Your task to perform on an android device: Search for flights from Buenos aires to Seoul Image 0: 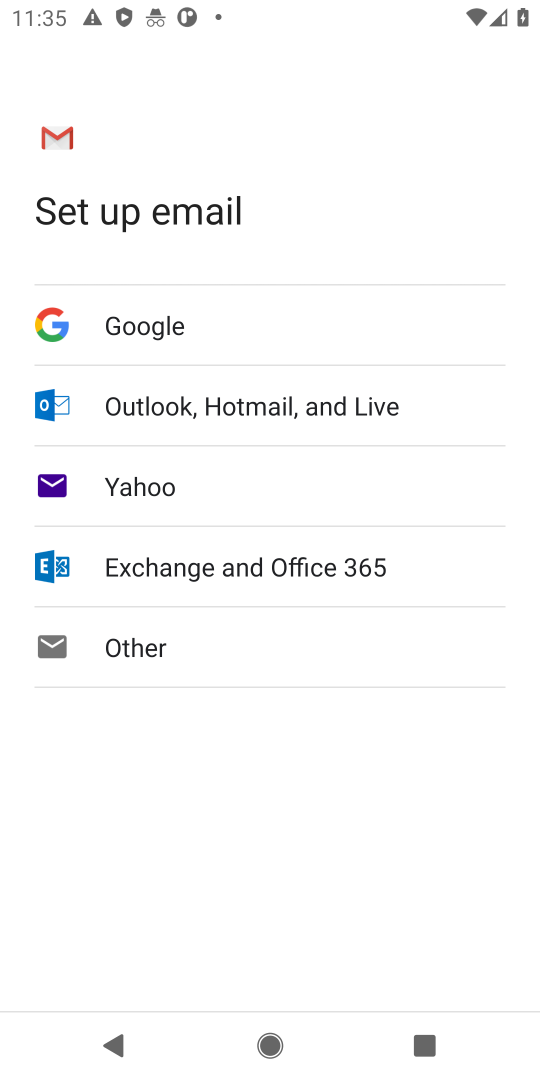
Step 0: press home button
Your task to perform on an android device: Search for flights from Buenos aires to Seoul Image 1: 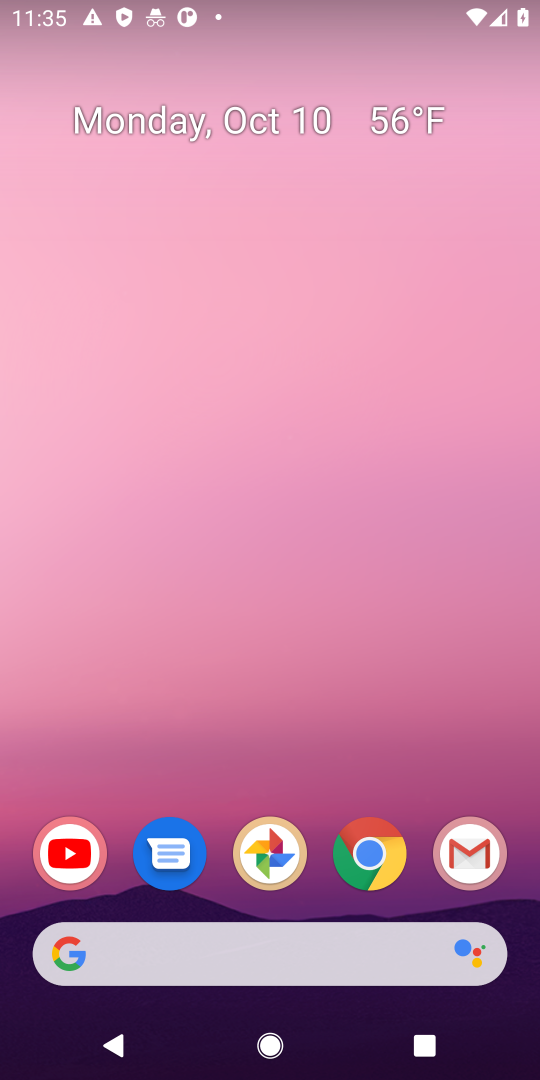
Step 1: drag from (318, 789) to (279, 0)
Your task to perform on an android device: Search for flights from Buenos aires to Seoul Image 2: 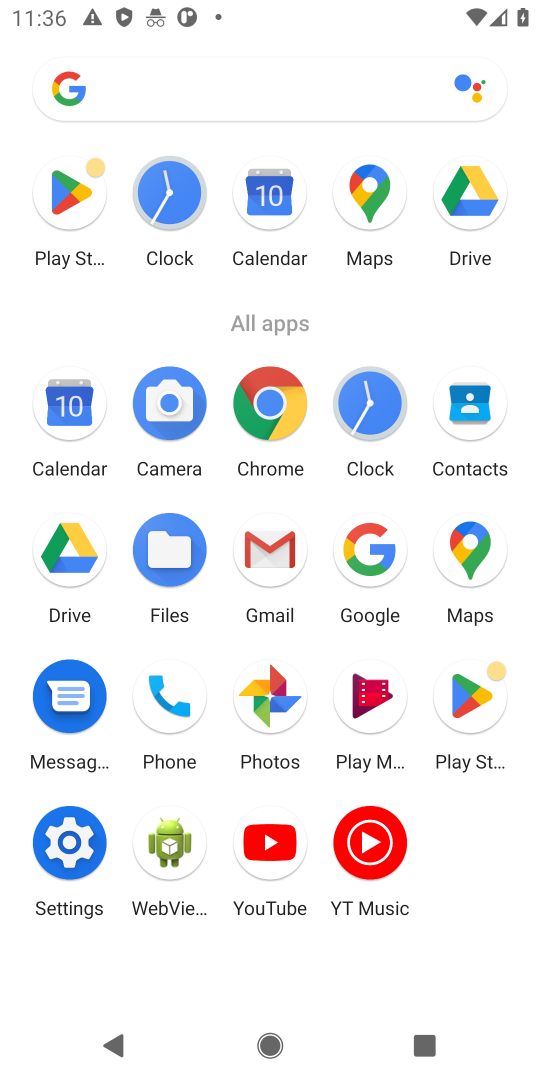
Step 2: click (263, 407)
Your task to perform on an android device: Search for flights from Buenos aires to Seoul Image 3: 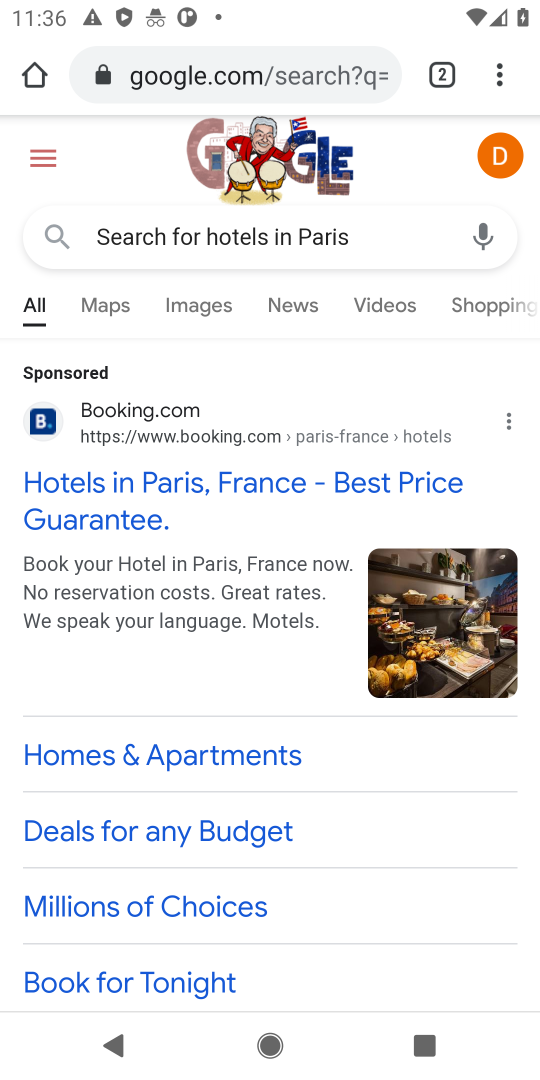
Step 3: click (174, 82)
Your task to perform on an android device: Search for flights from Buenos aires to Seoul Image 4: 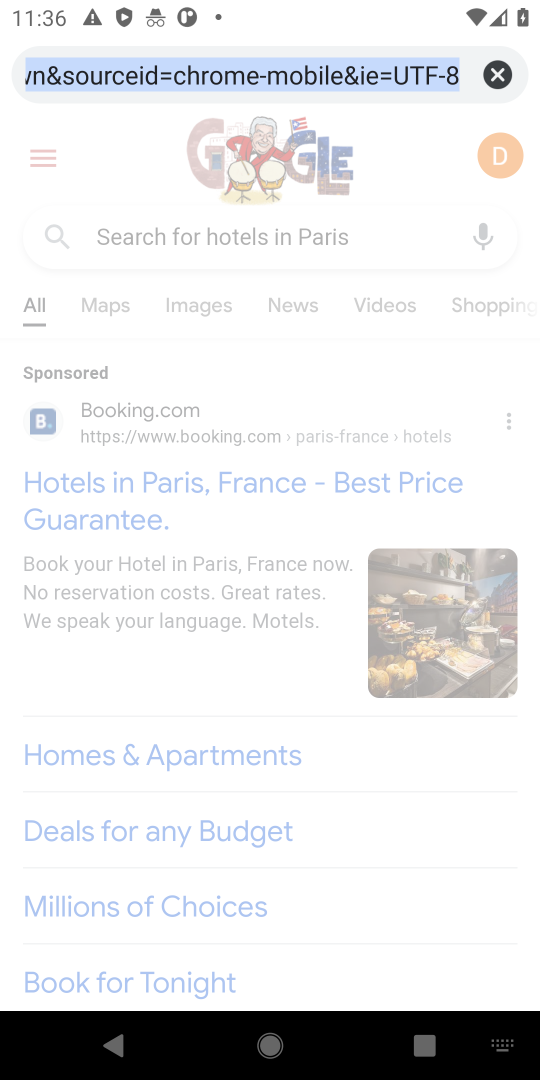
Step 4: click (492, 89)
Your task to perform on an android device: Search for flights from Buenos aires to Seoul Image 5: 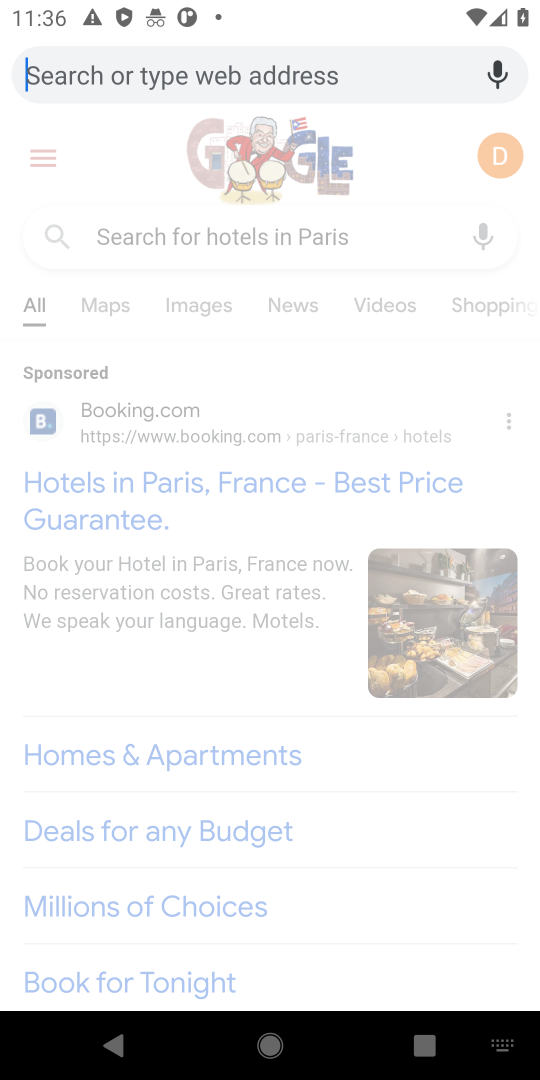
Step 5: click (495, 68)
Your task to perform on an android device: Search for flights from Buenos aires to Seoul Image 6: 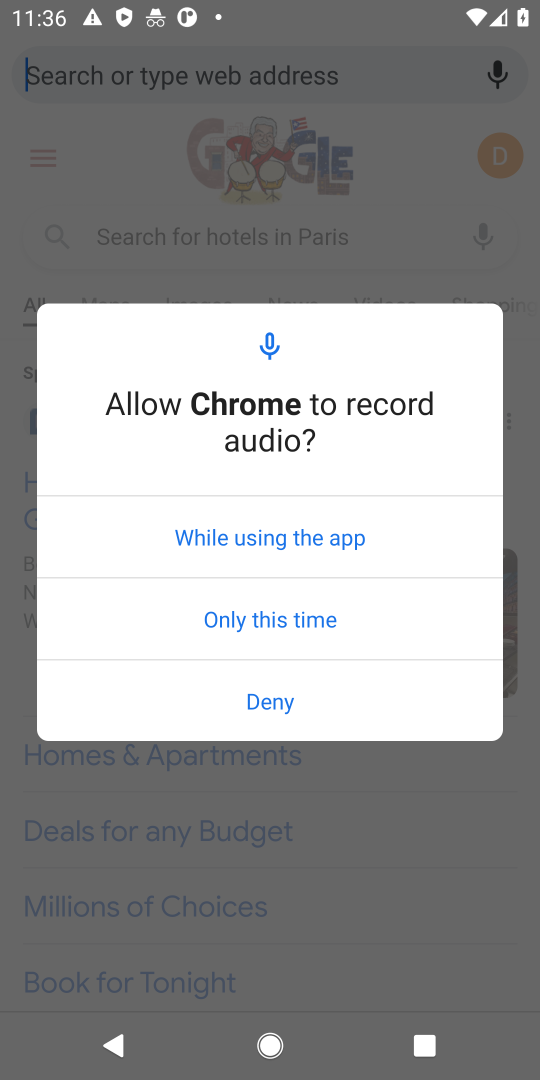
Step 6: click (308, 538)
Your task to perform on an android device: Search for flights from Buenos aires to Seoul Image 7: 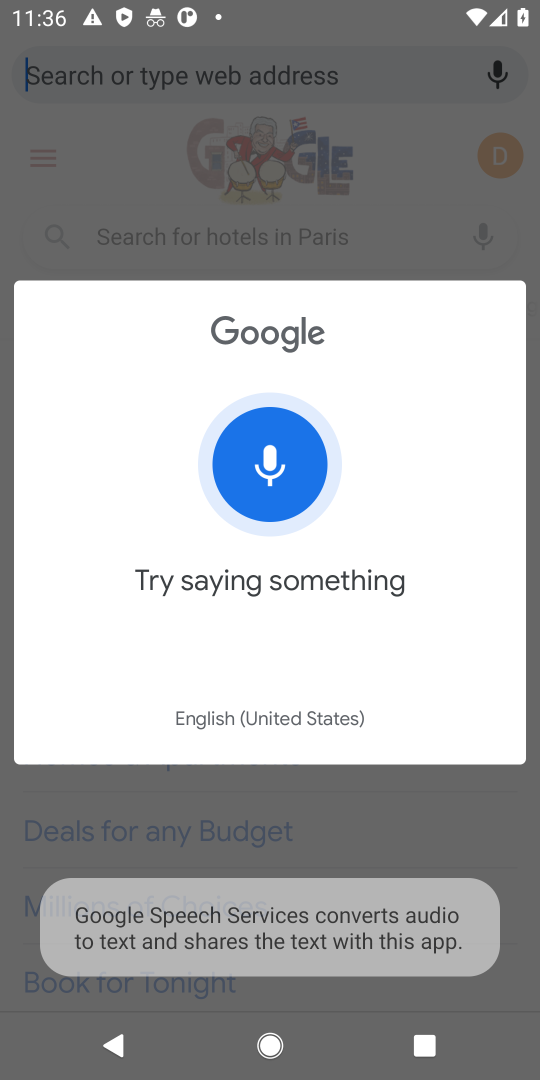
Step 7: click (384, 123)
Your task to perform on an android device: Search for flights from Buenos aires to Seoul Image 8: 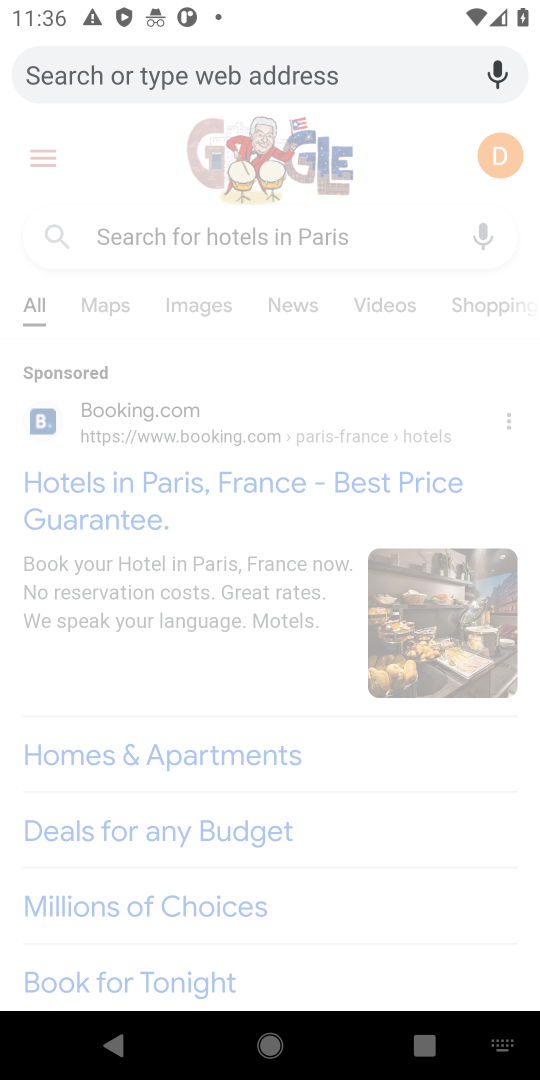
Step 8: type "Play the new Selena Gomez video "
Your task to perform on an android device: Search for flights from Buenos aires to Seoul Image 9: 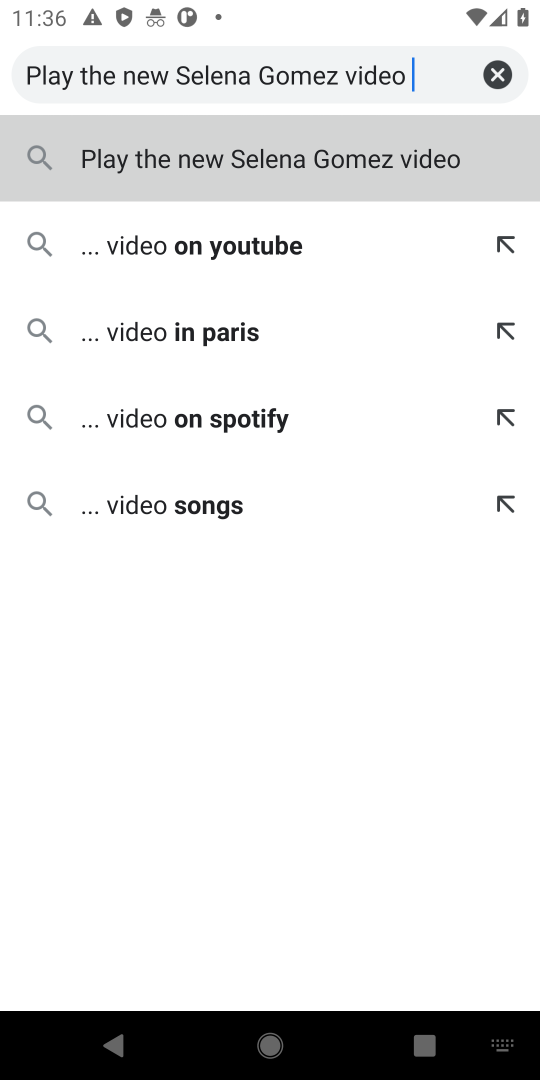
Step 9: click (307, 146)
Your task to perform on an android device: Search for flights from Buenos aires to Seoul Image 10: 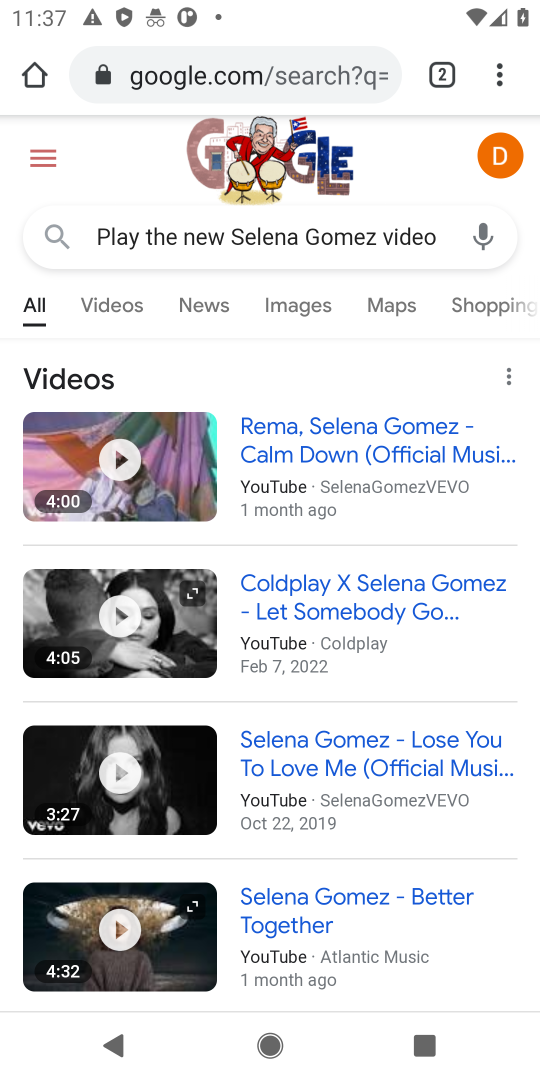
Step 10: task complete